Your task to perform on an android device: What is the recent news? Image 0: 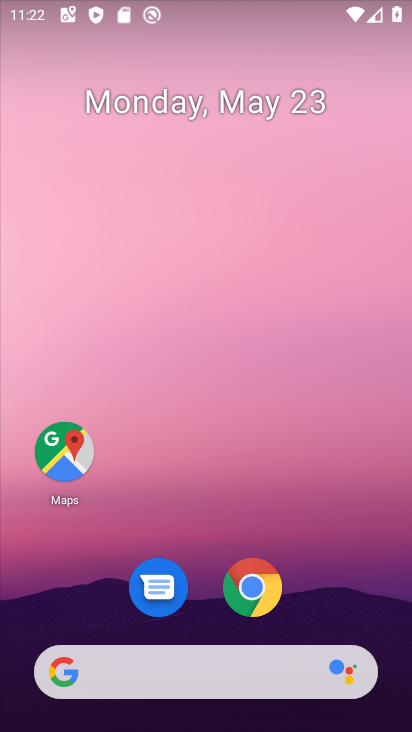
Step 0: click (249, 661)
Your task to perform on an android device: What is the recent news? Image 1: 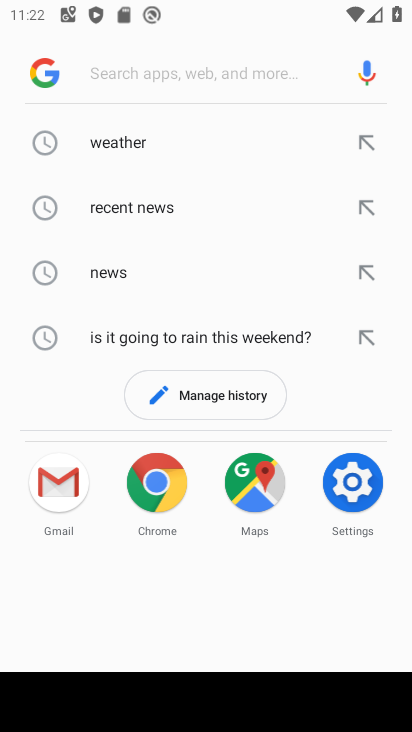
Step 1: click (182, 219)
Your task to perform on an android device: What is the recent news? Image 2: 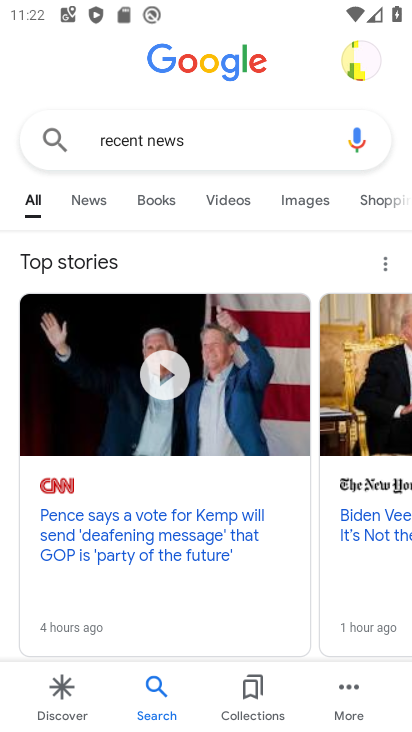
Step 2: task complete